Your task to perform on an android device: turn off location Image 0: 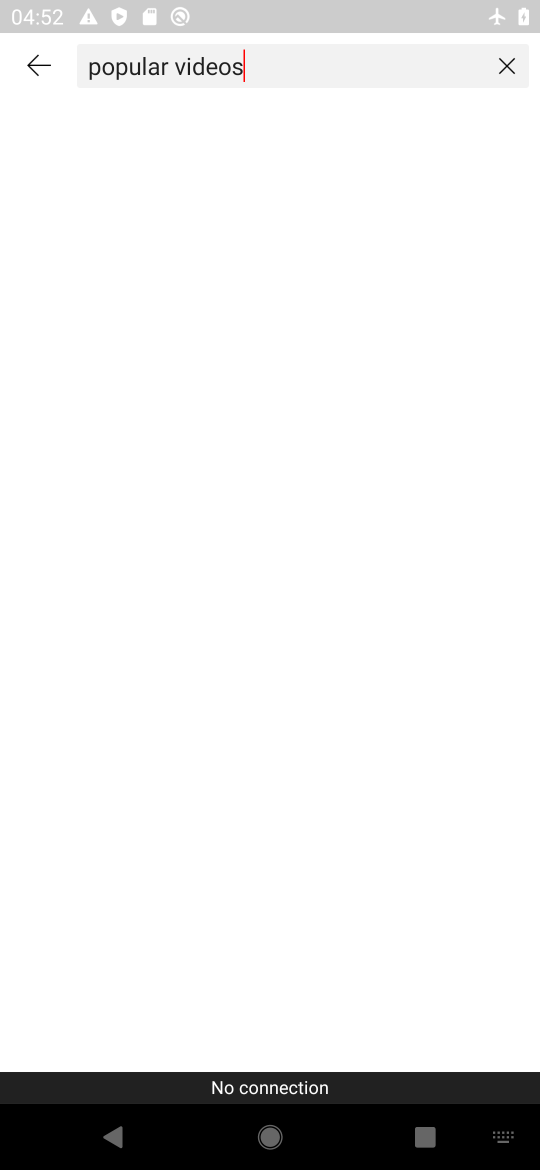
Step 0: press back button
Your task to perform on an android device: turn off location Image 1: 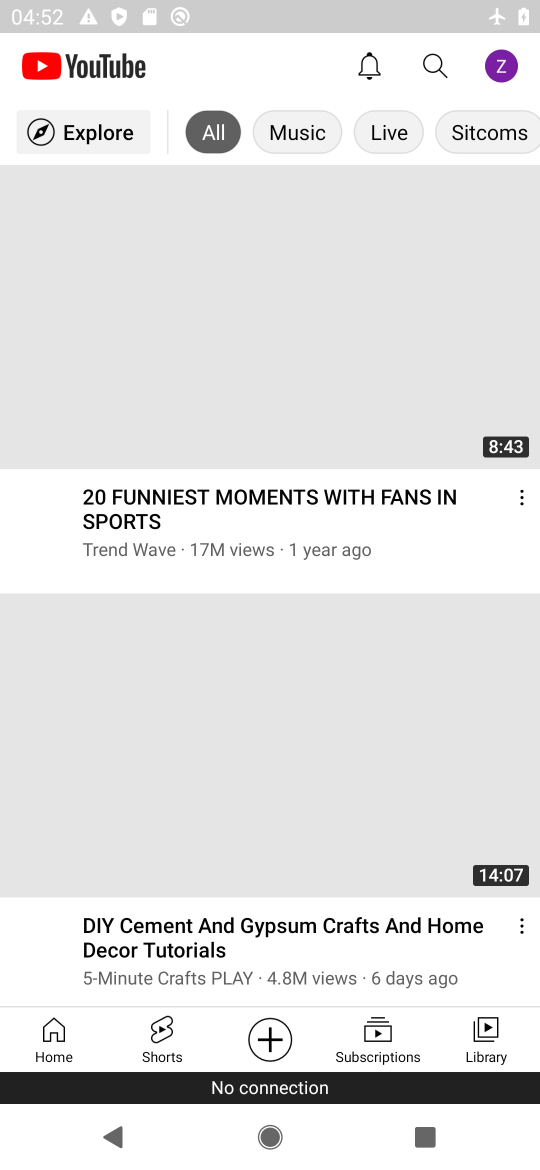
Step 1: press home button
Your task to perform on an android device: turn off location Image 2: 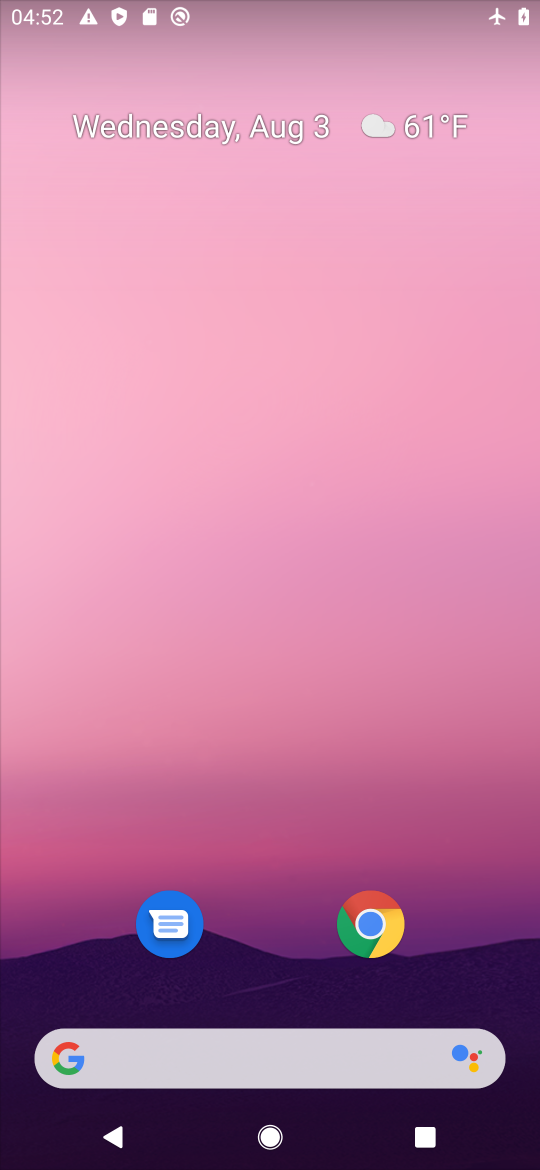
Step 2: drag from (246, 971) to (266, 354)
Your task to perform on an android device: turn off location Image 3: 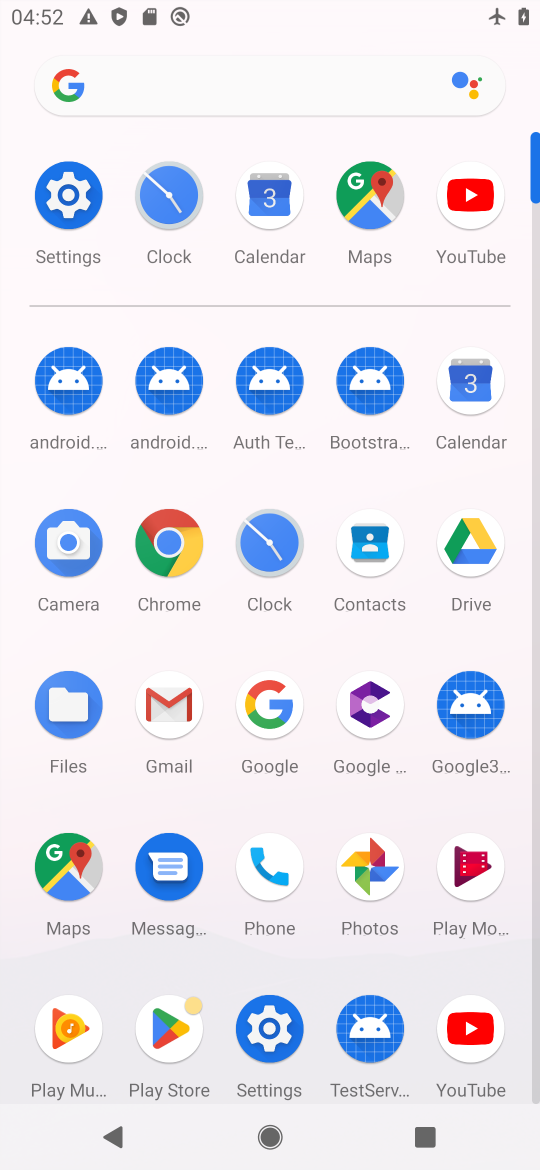
Step 3: click (84, 217)
Your task to perform on an android device: turn off location Image 4: 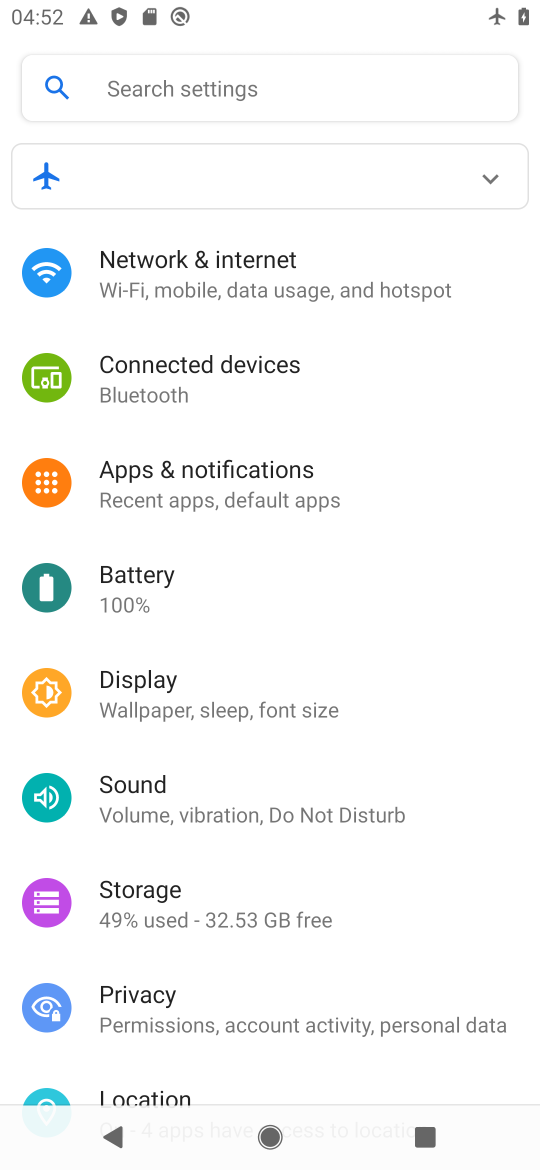
Step 4: drag from (252, 991) to (198, 486)
Your task to perform on an android device: turn off location Image 5: 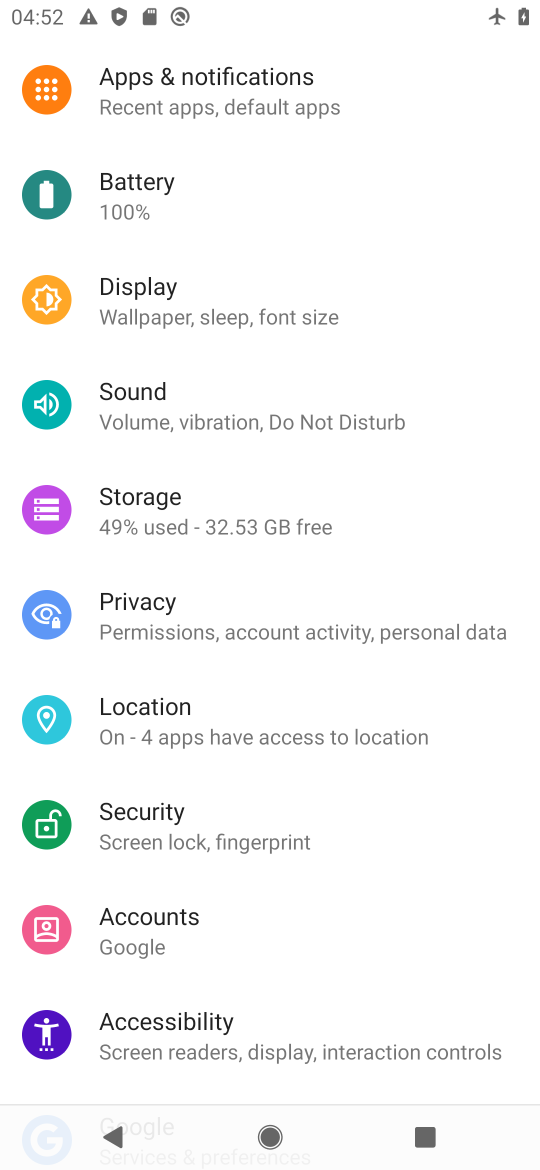
Step 5: click (153, 734)
Your task to perform on an android device: turn off location Image 6: 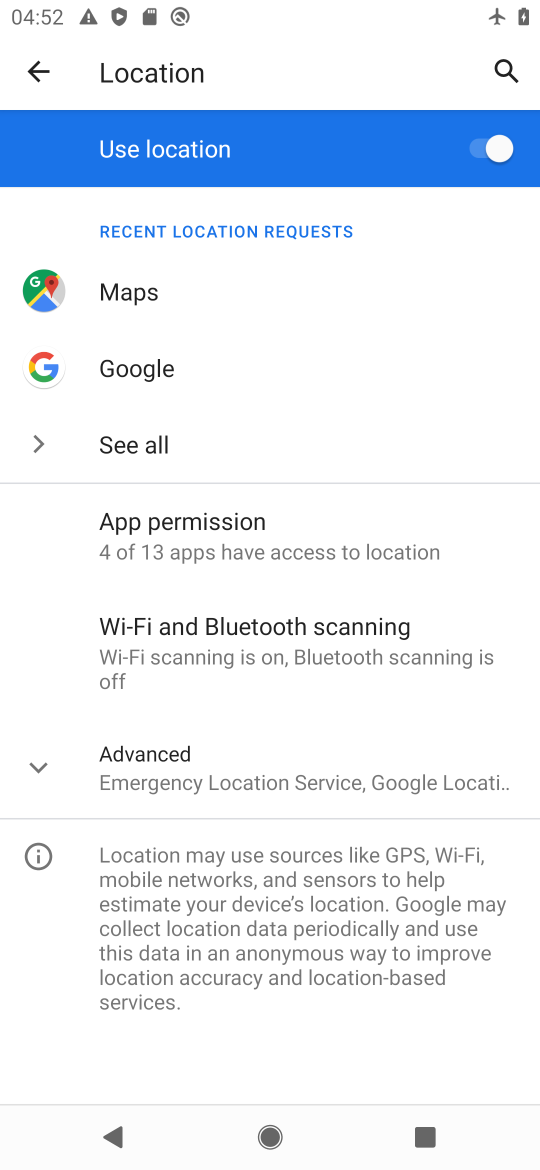
Step 6: click (472, 163)
Your task to perform on an android device: turn off location Image 7: 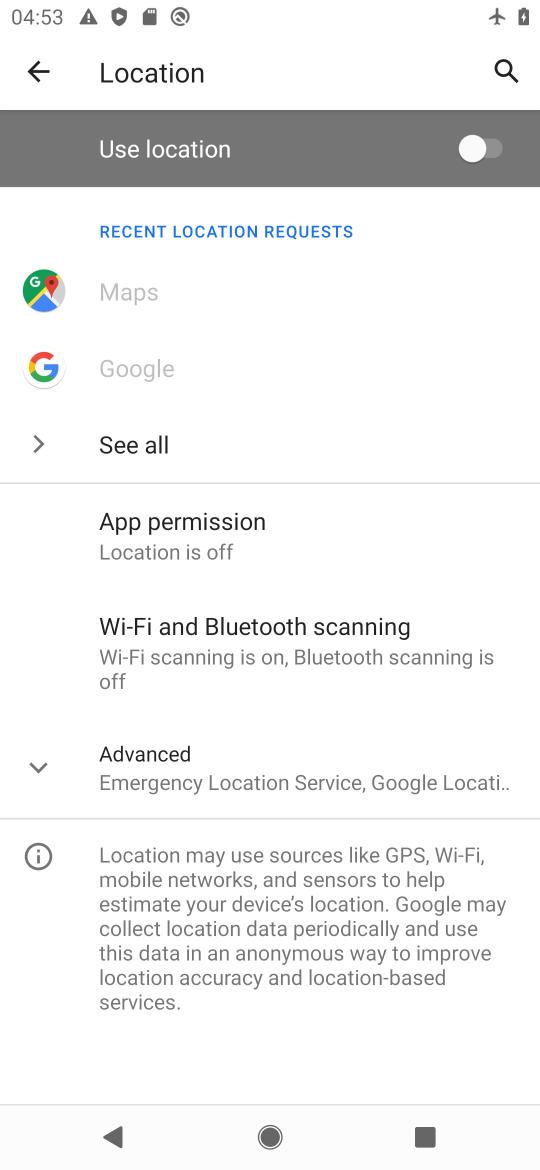
Step 7: task complete